Your task to perform on an android device: How do I get to the nearest Macy's? Image 0: 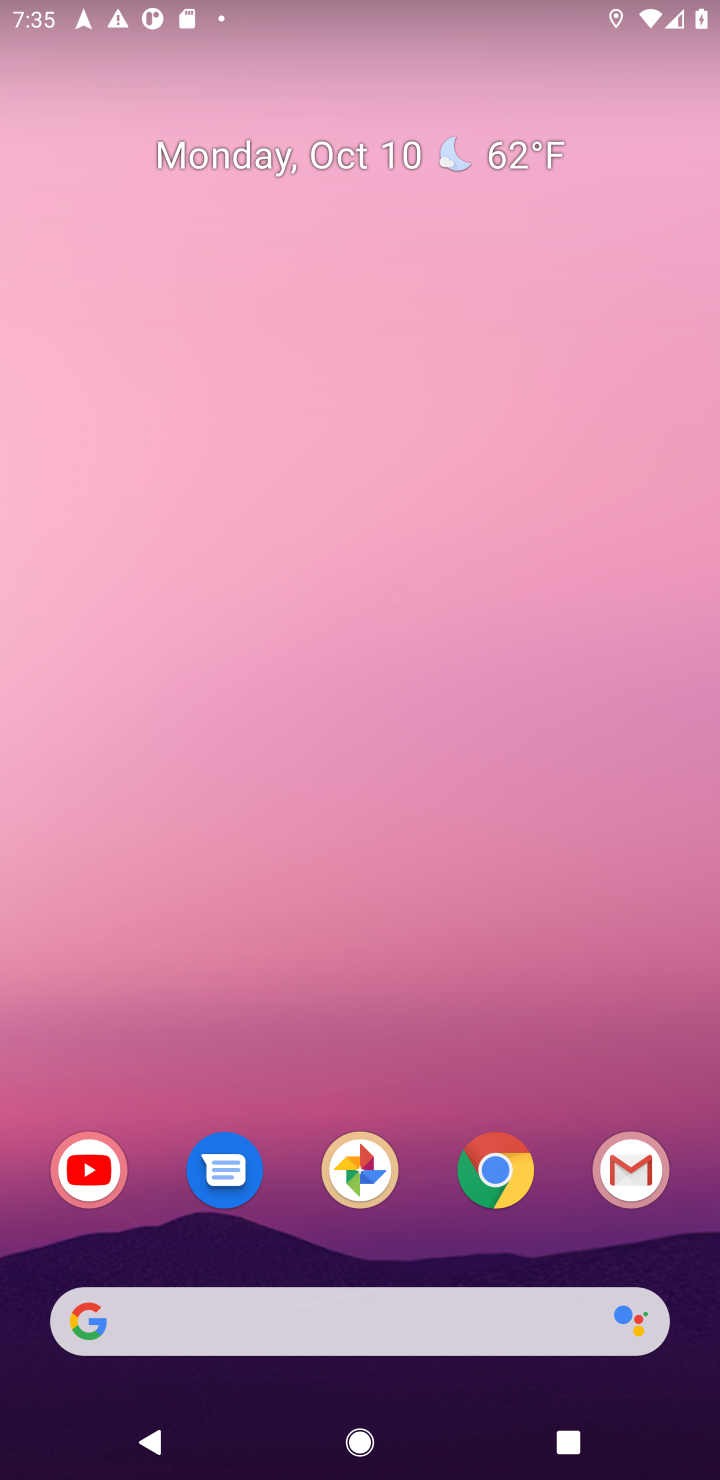
Step 0: click (491, 1181)
Your task to perform on an android device: How do I get to the nearest Macy's? Image 1: 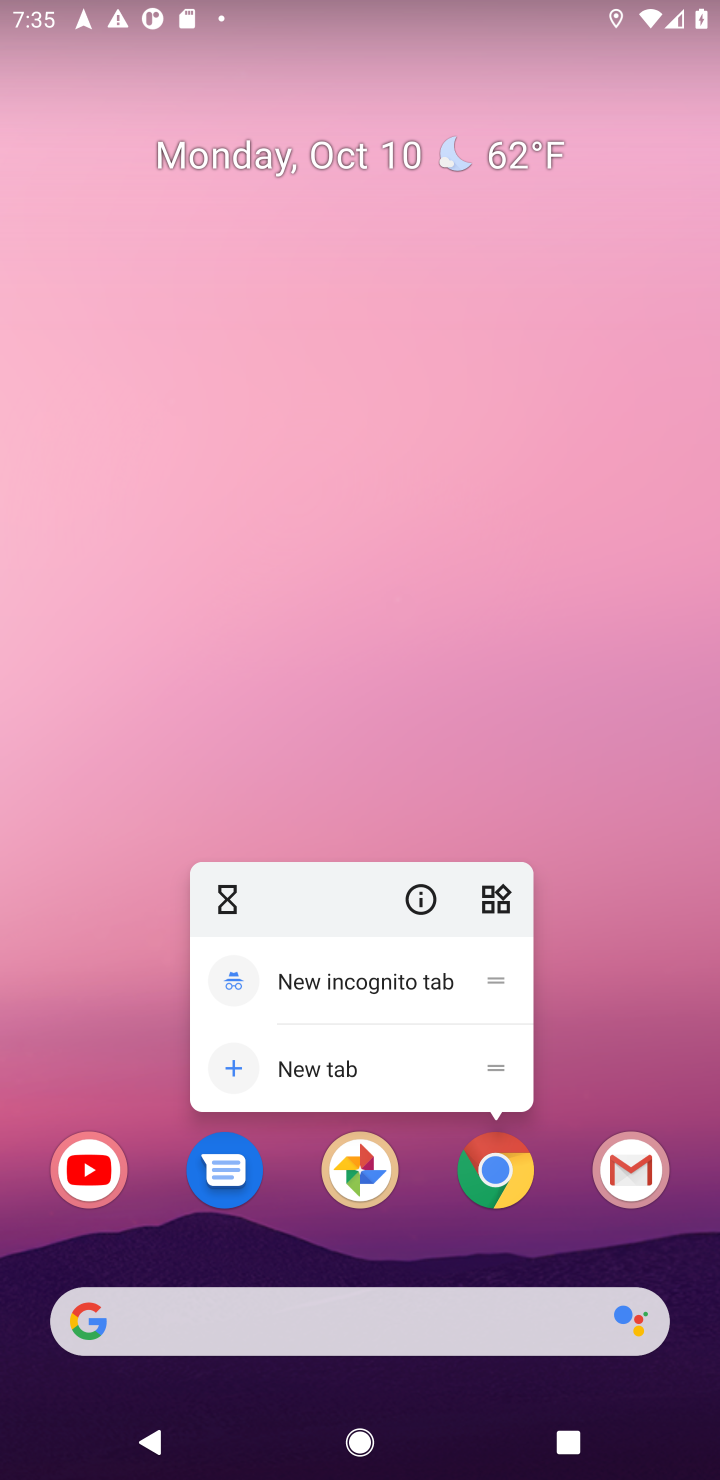
Step 1: click (503, 1194)
Your task to perform on an android device: How do I get to the nearest Macy's? Image 2: 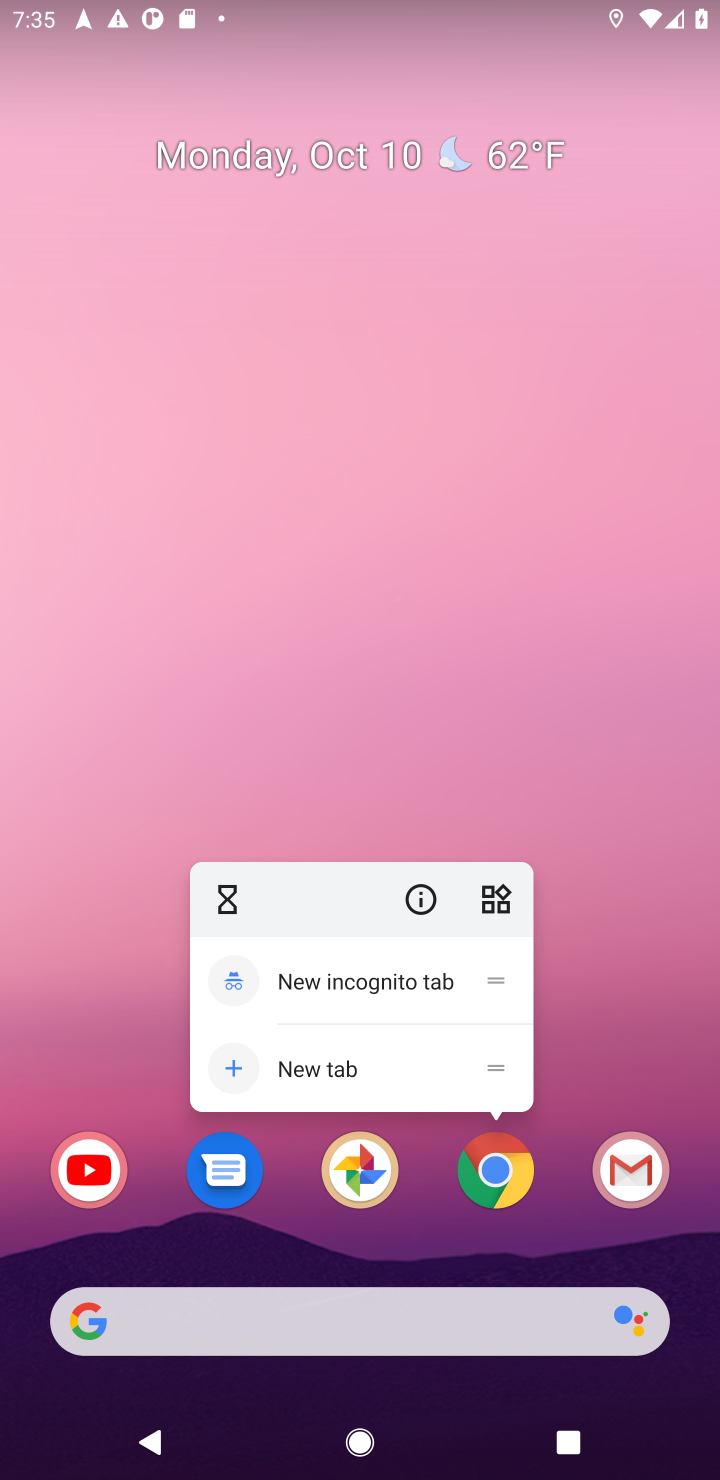
Step 2: click (499, 1193)
Your task to perform on an android device: How do I get to the nearest Macy's? Image 3: 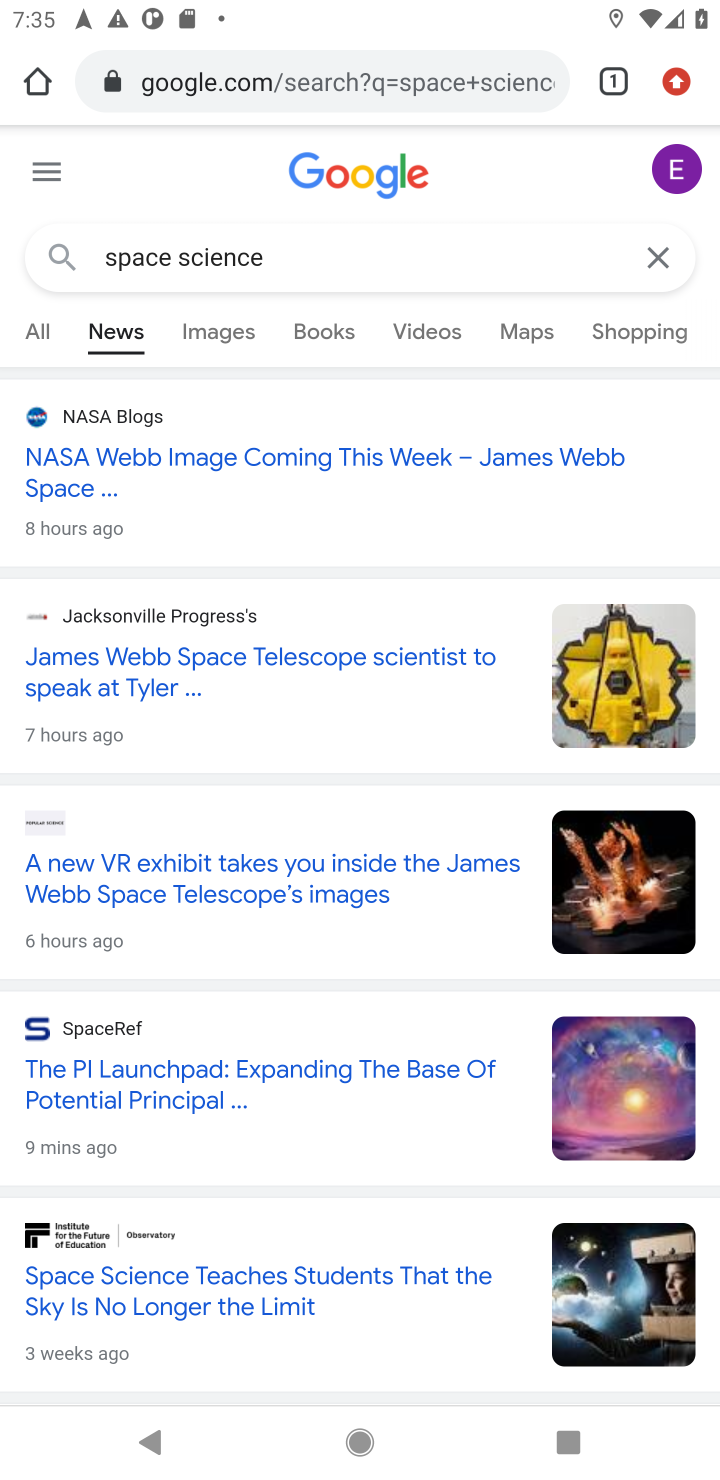
Step 3: click (398, 90)
Your task to perform on an android device: How do I get to the nearest Macy's? Image 4: 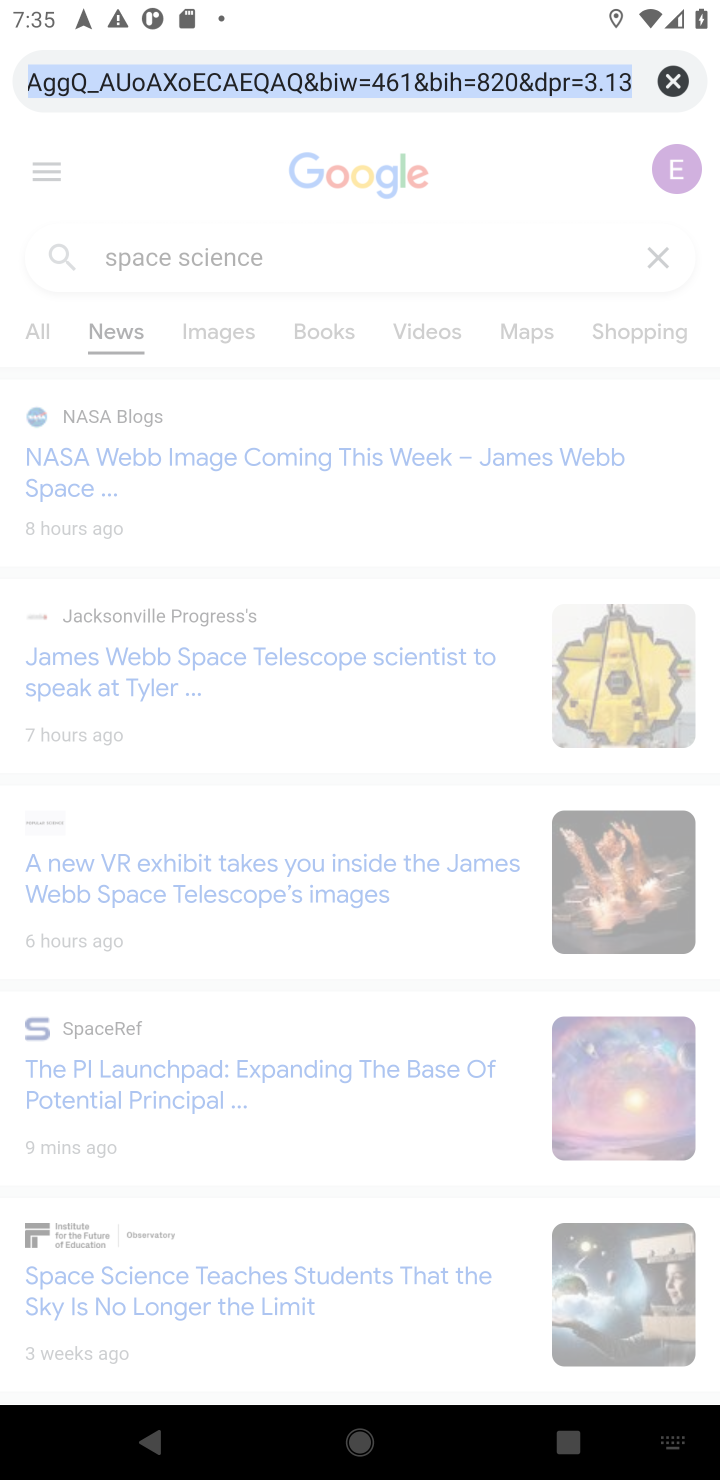
Step 4: type "How do I get to the nearest Macy's?"
Your task to perform on an android device: How do I get to the nearest Macy's? Image 5: 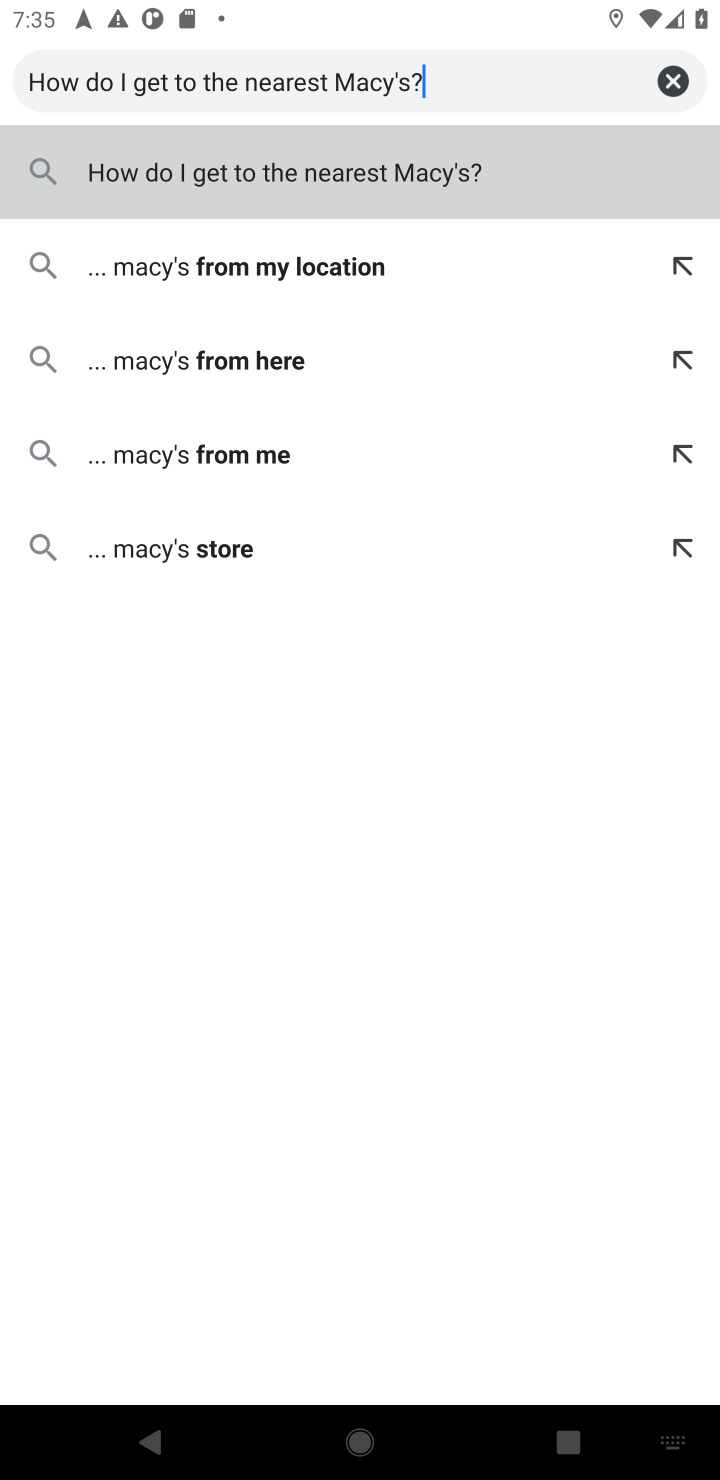
Step 5: click (431, 176)
Your task to perform on an android device: How do I get to the nearest Macy's? Image 6: 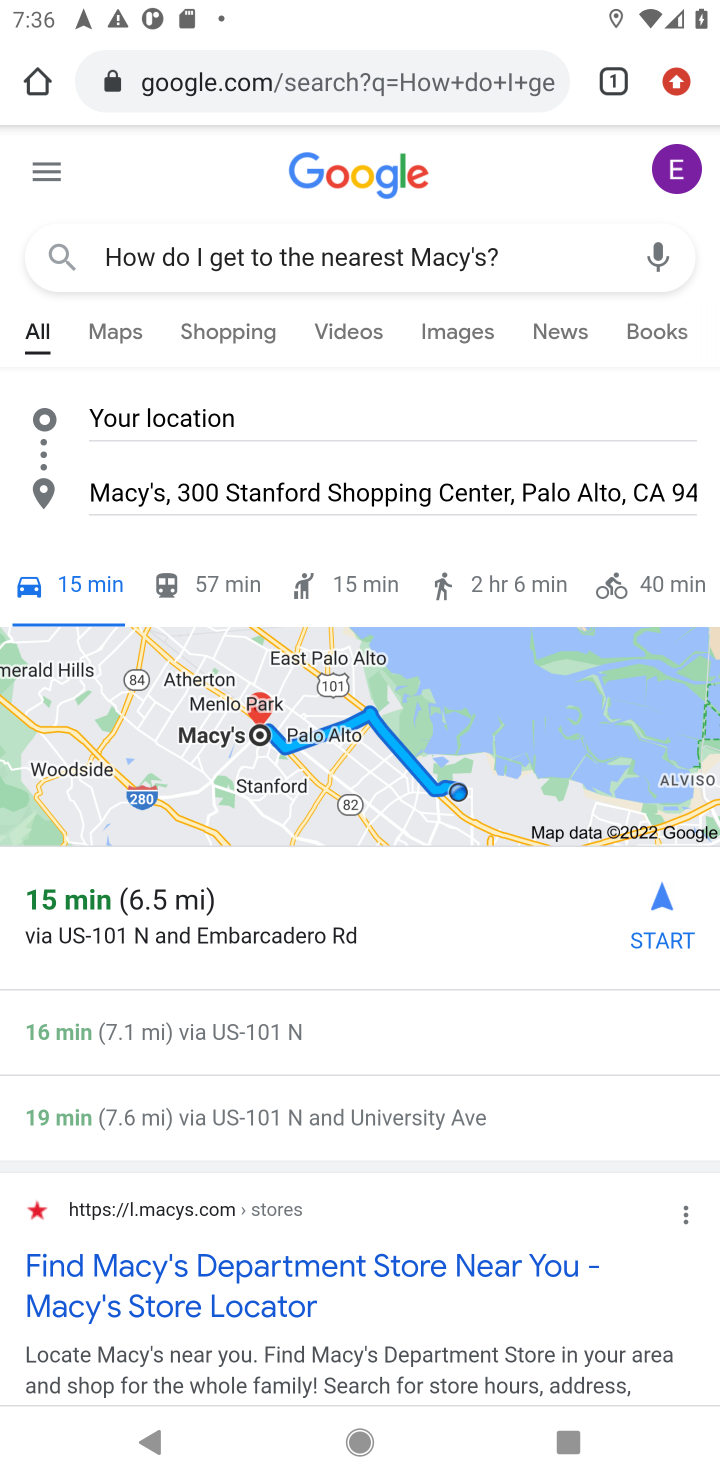
Step 6: click (657, 927)
Your task to perform on an android device: How do I get to the nearest Macy's? Image 7: 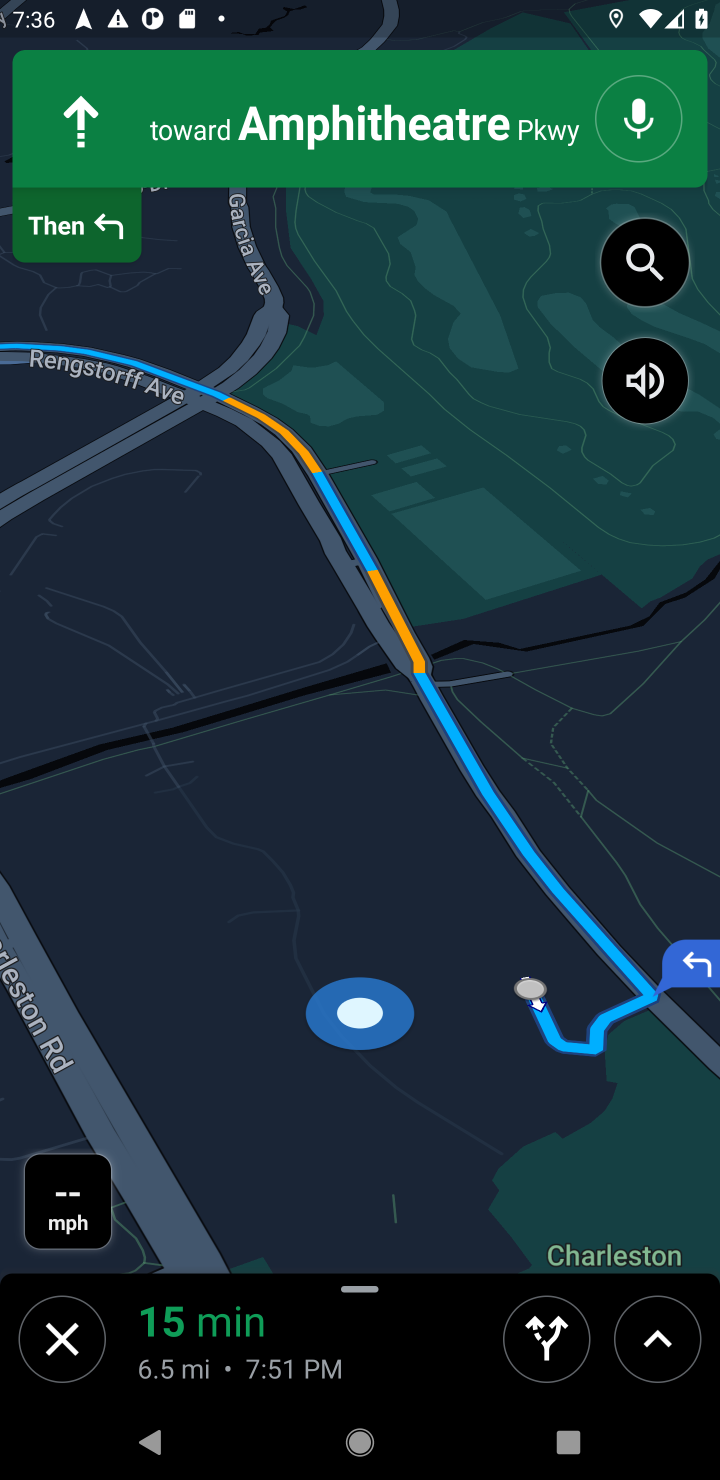
Step 7: task complete